Your task to perform on an android device: When is my next meeting? Image 0: 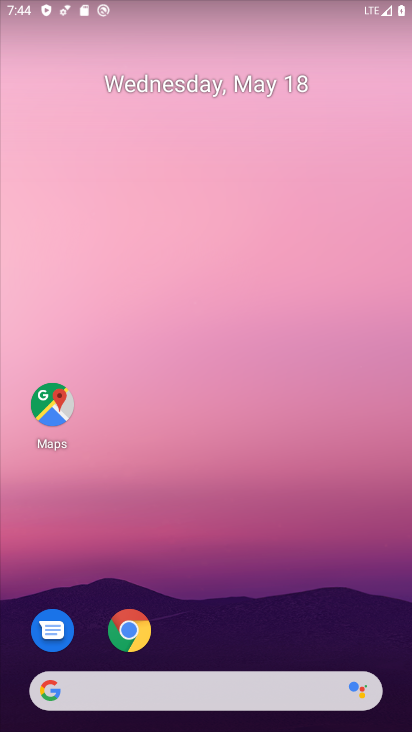
Step 0: press home button
Your task to perform on an android device: When is my next meeting? Image 1: 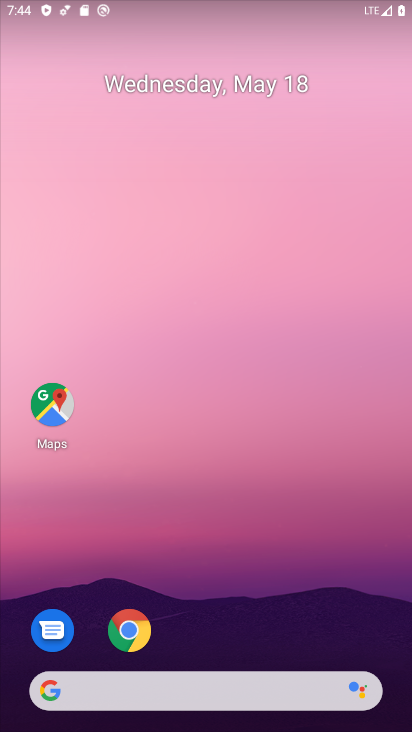
Step 1: drag from (270, 183) to (288, 64)
Your task to perform on an android device: When is my next meeting? Image 2: 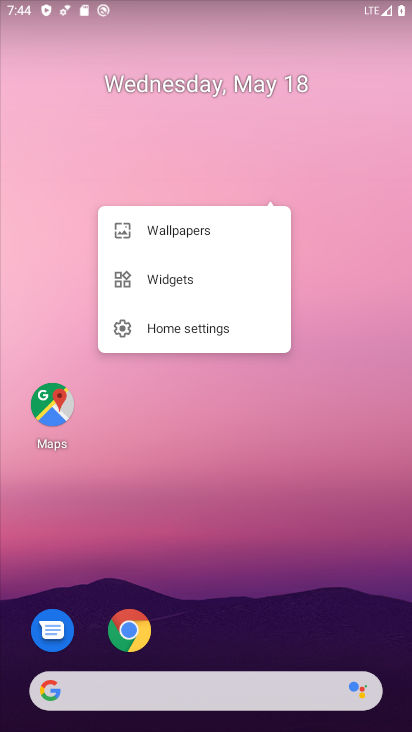
Step 2: click (330, 92)
Your task to perform on an android device: When is my next meeting? Image 3: 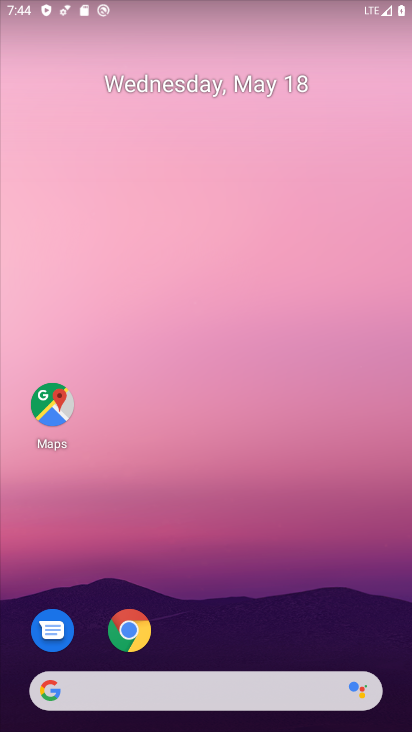
Step 3: click (263, 502)
Your task to perform on an android device: When is my next meeting? Image 4: 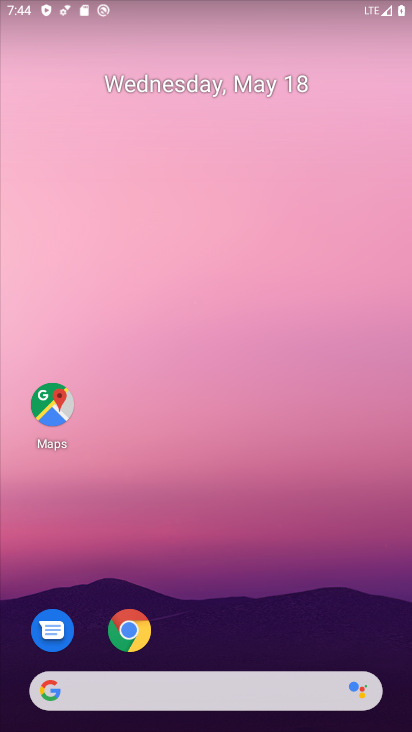
Step 4: drag from (214, 677) to (337, 154)
Your task to perform on an android device: When is my next meeting? Image 5: 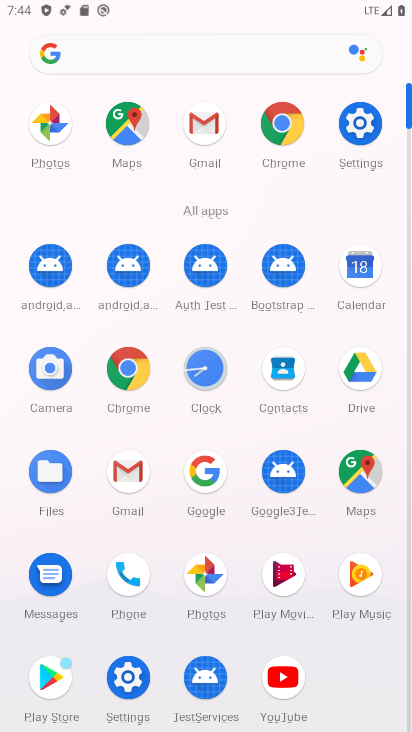
Step 5: click (355, 261)
Your task to perform on an android device: When is my next meeting? Image 6: 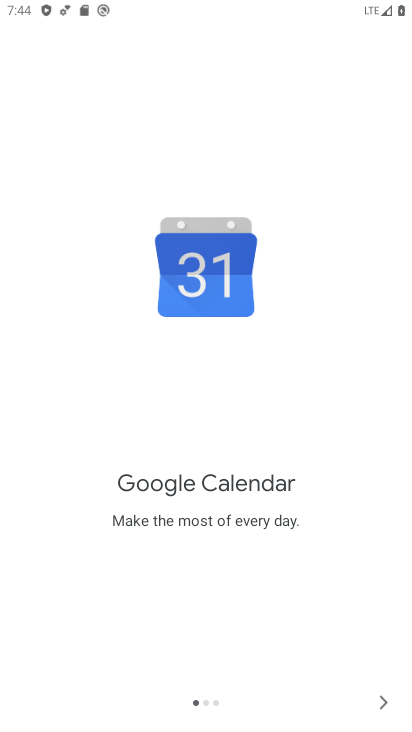
Step 6: click (383, 699)
Your task to perform on an android device: When is my next meeting? Image 7: 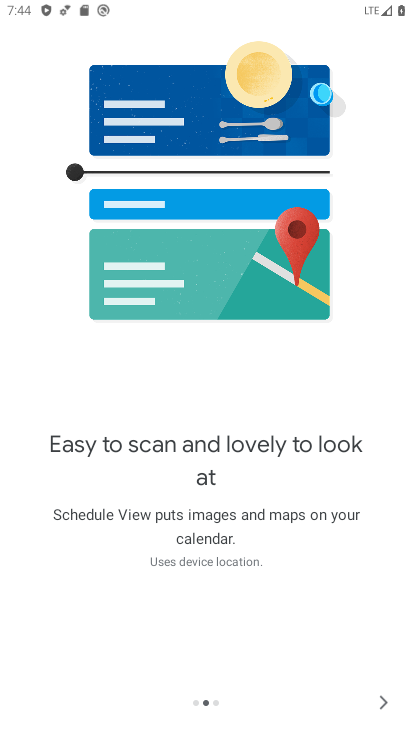
Step 7: click (383, 699)
Your task to perform on an android device: When is my next meeting? Image 8: 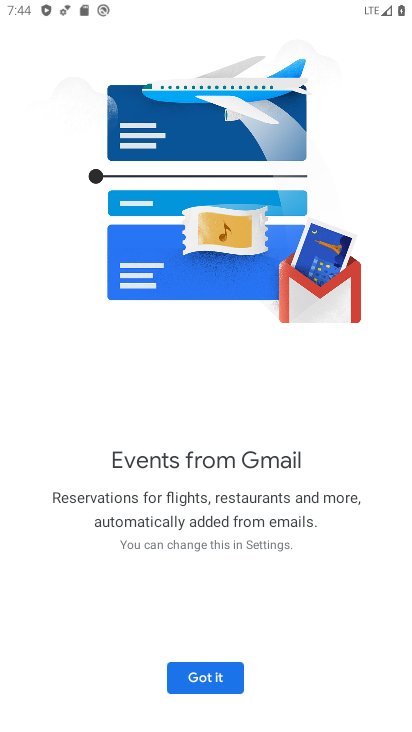
Step 8: click (383, 699)
Your task to perform on an android device: When is my next meeting? Image 9: 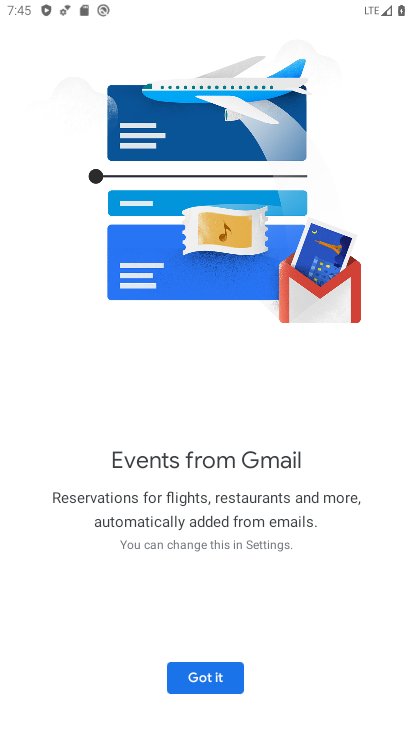
Step 9: click (210, 671)
Your task to perform on an android device: When is my next meeting? Image 10: 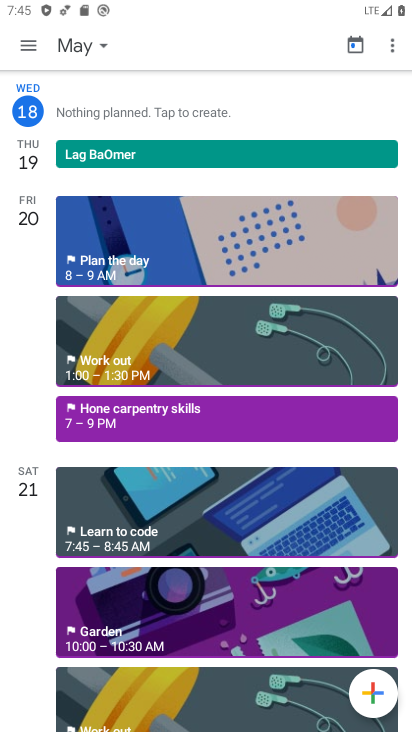
Step 10: click (70, 43)
Your task to perform on an android device: When is my next meeting? Image 11: 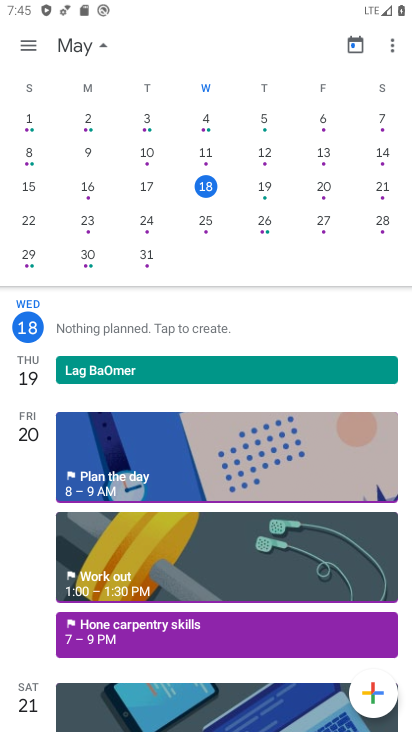
Step 11: click (203, 186)
Your task to perform on an android device: When is my next meeting? Image 12: 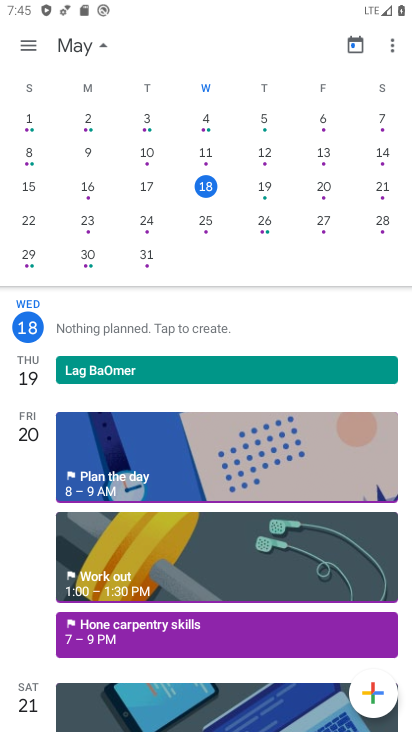
Step 12: click (18, 50)
Your task to perform on an android device: When is my next meeting? Image 13: 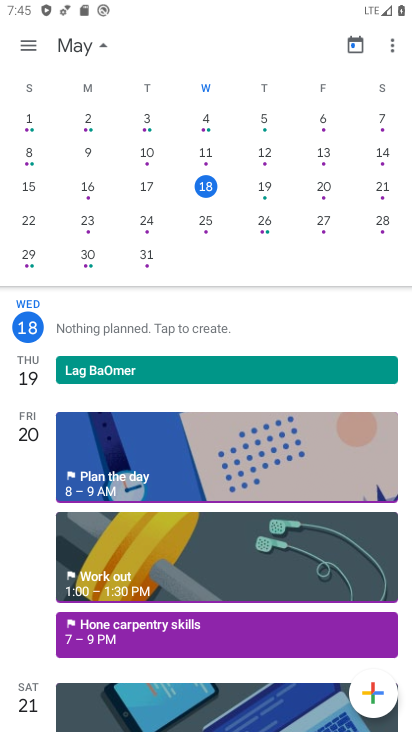
Step 13: click (28, 50)
Your task to perform on an android device: When is my next meeting? Image 14: 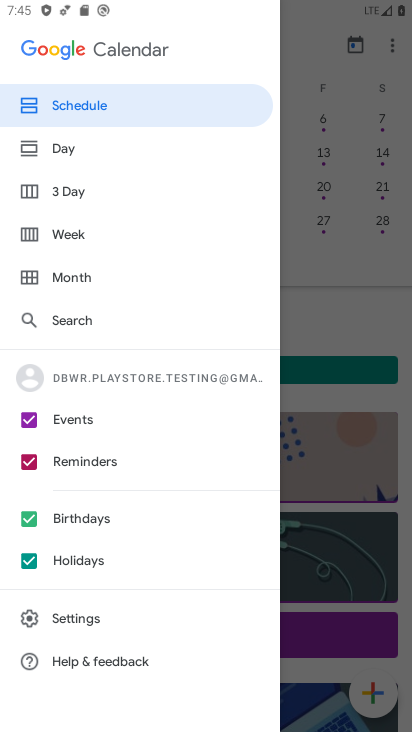
Step 14: click (83, 105)
Your task to perform on an android device: When is my next meeting? Image 15: 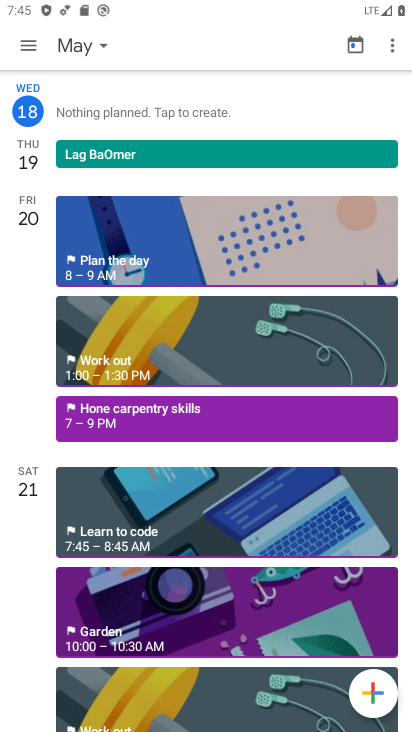
Step 15: click (207, 423)
Your task to perform on an android device: When is my next meeting? Image 16: 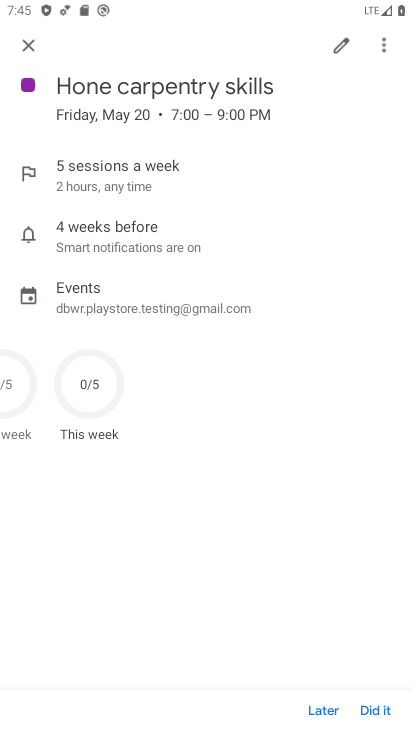
Step 16: task complete